Your task to perform on an android device: Open the stopwatch Image 0: 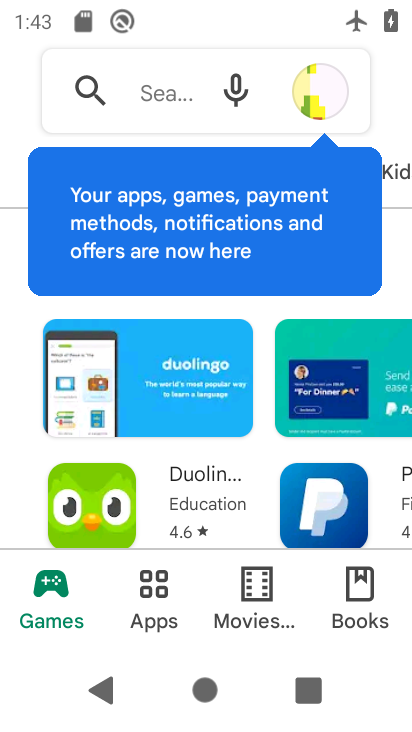
Step 0: press home button
Your task to perform on an android device: Open the stopwatch Image 1: 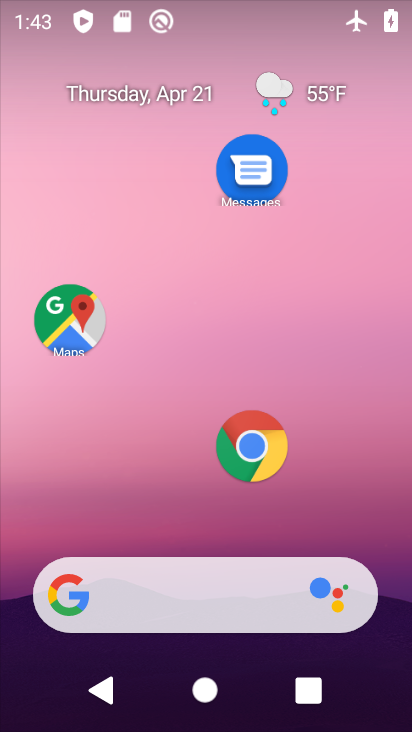
Step 1: drag from (153, 456) to (227, 6)
Your task to perform on an android device: Open the stopwatch Image 2: 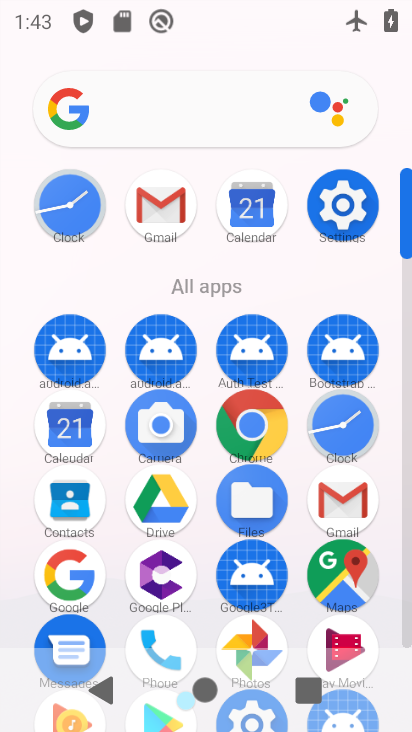
Step 2: click (71, 203)
Your task to perform on an android device: Open the stopwatch Image 3: 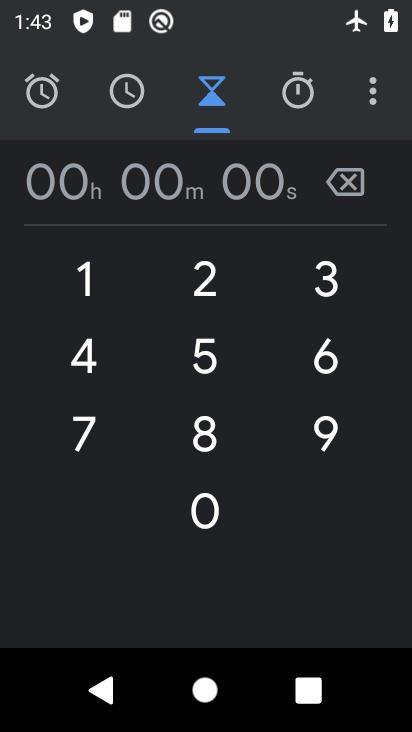
Step 3: click (300, 100)
Your task to perform on an android device: Open the stopwatch Image 4: 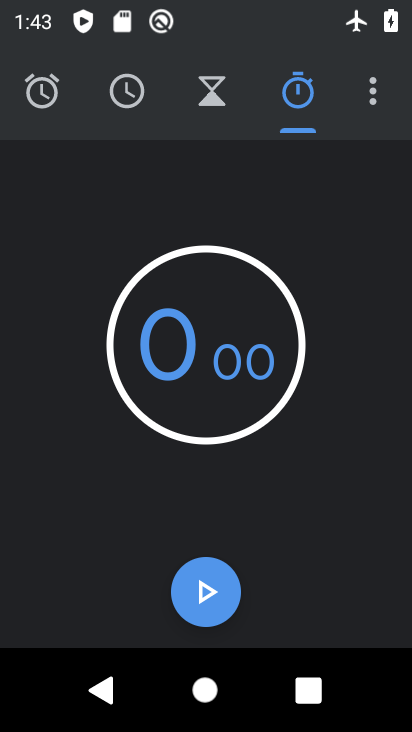
Step 4: task complete